Your task to perform on an android device: Play the last video I watched on Youtube Image 0: 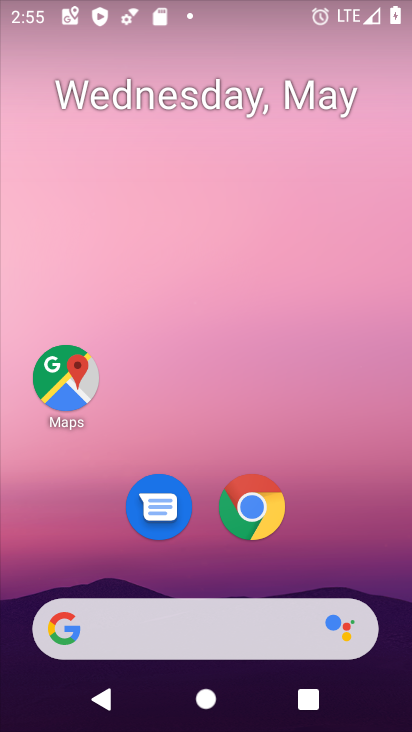
Step 0: drag from (339, 536) to (256, 253)
Your task to perform on an android device: Play the last video I watched on Youtube Image 1: 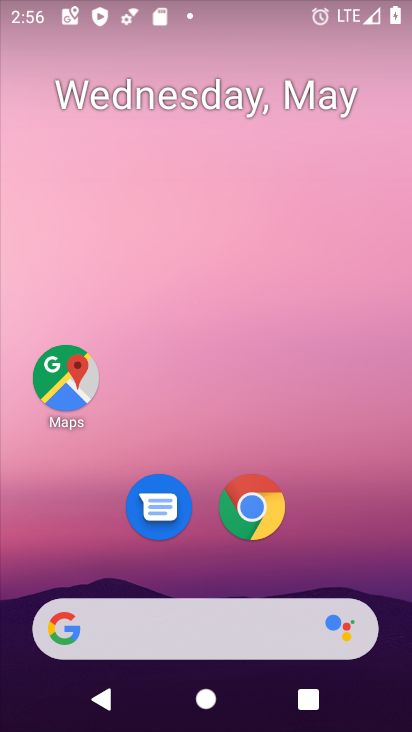
Step 1: drag from (315, 540) to (205, 134)
Your task to perform on an android device: Play the last video I watched on Youtube Image 2: 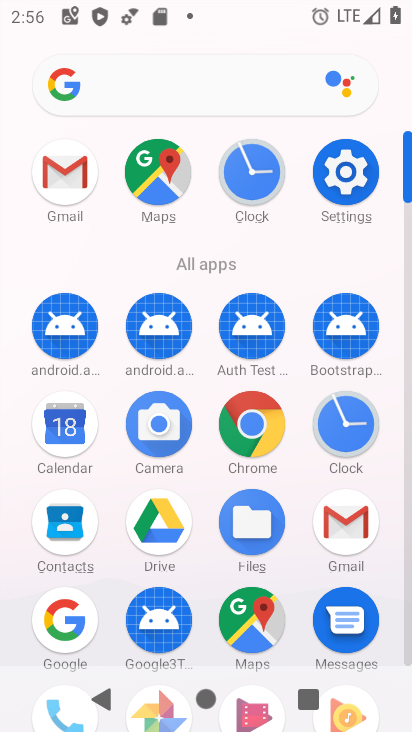
Step 2: drag from (292, 574) to (270, 296)
Your task to perform on an android device: Play the last video I watched on Youtube Image 3: 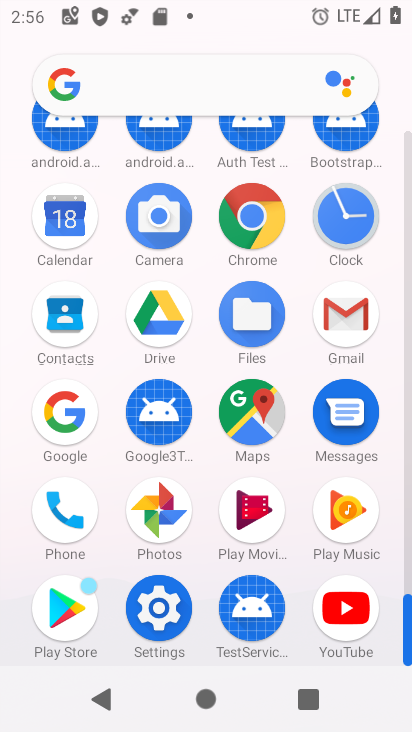
Step 3: click (346, 606)
Your task to perform on an android device: Play the last video I watched on Youtube Image 4: 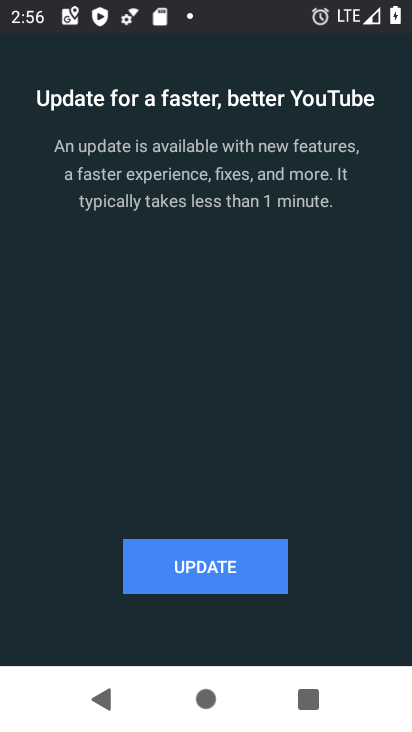
Step 4: click (210, 571)
Your task to perform on an android device: Play the last video I watched on Youtube Image 5: 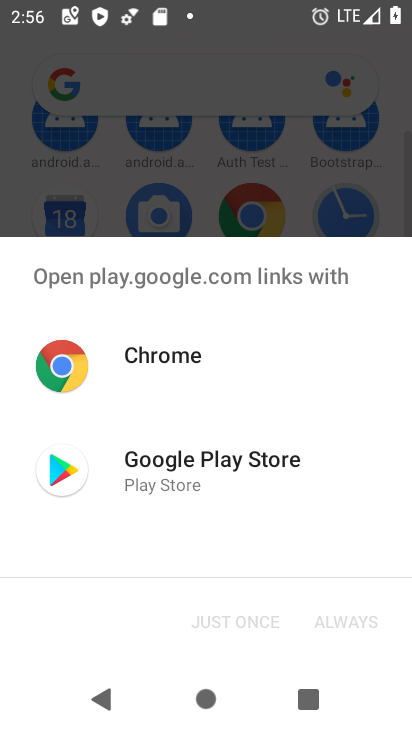
Step 5: click (139, 453)
Your task to perform on an android device: Play the last video I watched on Youtube Image 6: 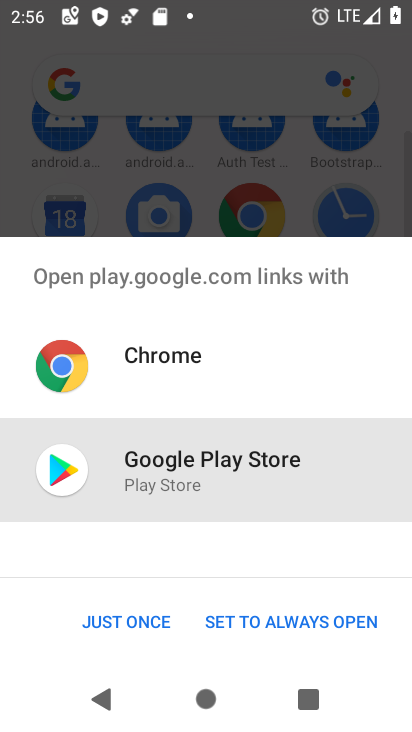
Step 6: click (128, 619)
Your task to perform on an android device: Play the last video I watched on Youtube Image 7: 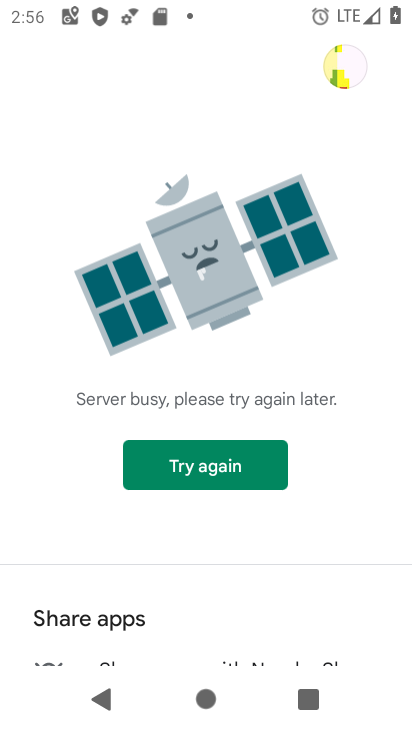
Step 7: click (203, 465)
Your task to perform on an android device: Play the last video I watched on Youtube Image 8: 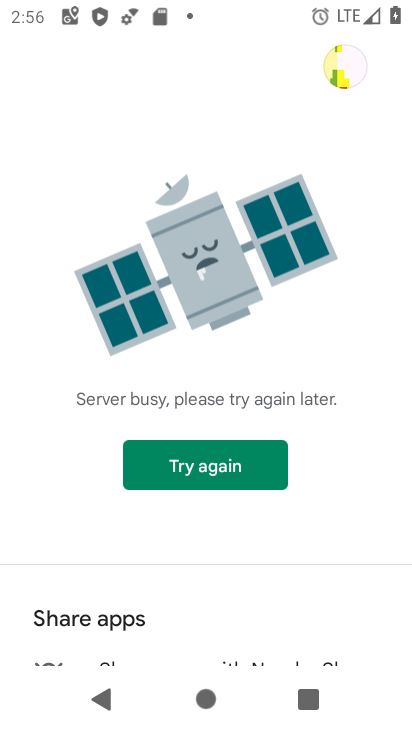
Step 8: task complete